Your task to perform on an android device: turn off airplane mode Image 0: 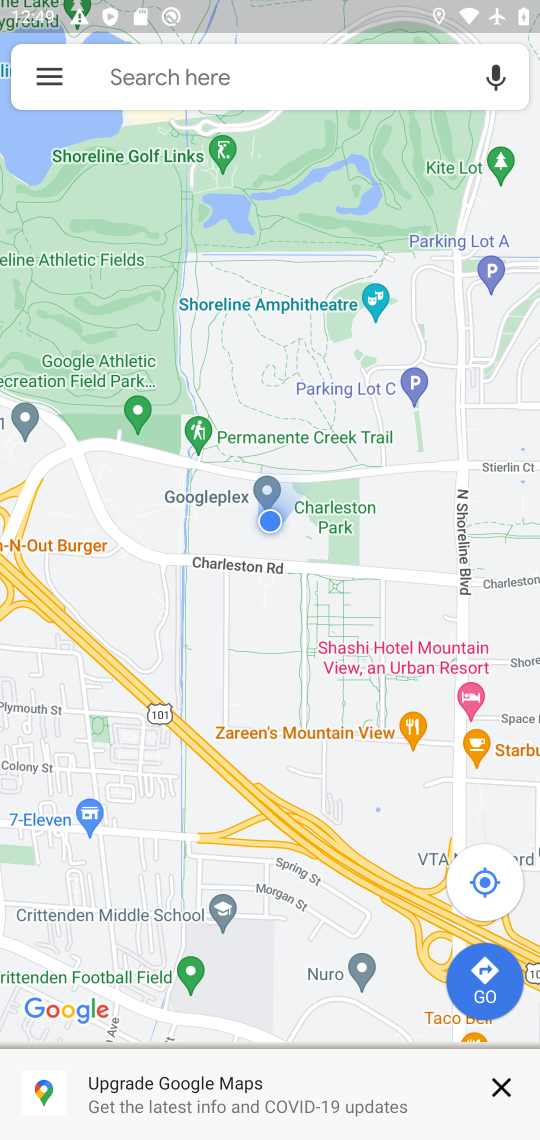
Step 0: press home button
Your task to perform on an android device: turn off airplane mode Image 1: 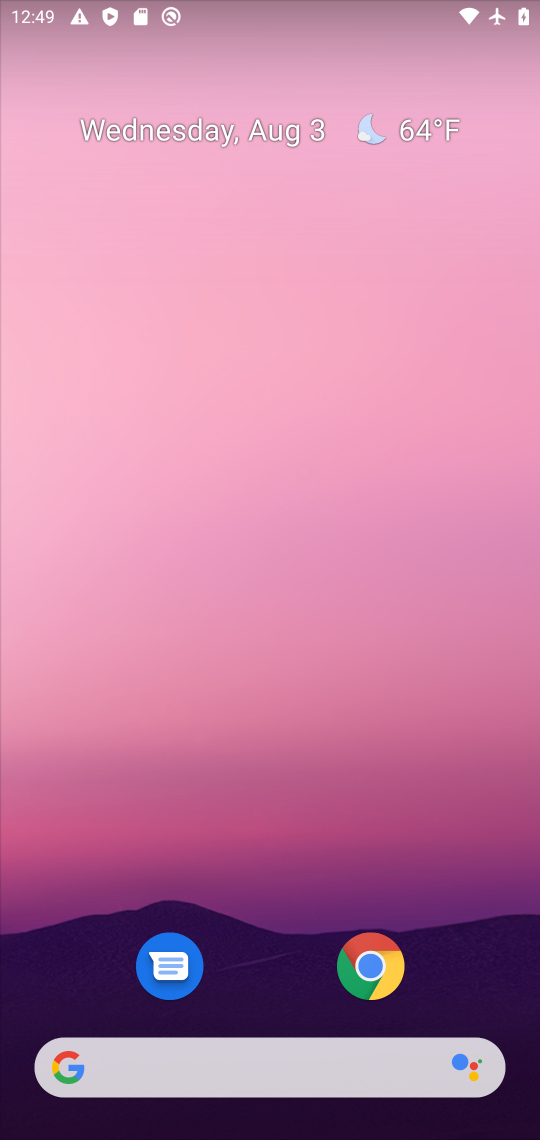
Step 1: drag from (267, 992) to (294, 257)
Your task to perform on an android device: turn off airplane mode Image 2: 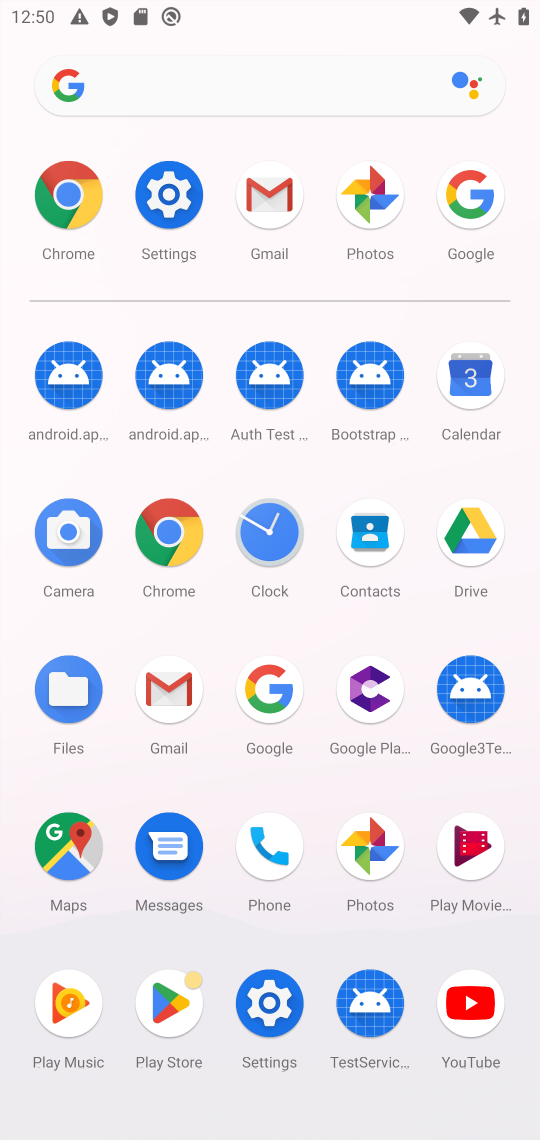
Step 2: click (189, 214)
Your task to perform on an android device: turn off airplane mode Image 3: 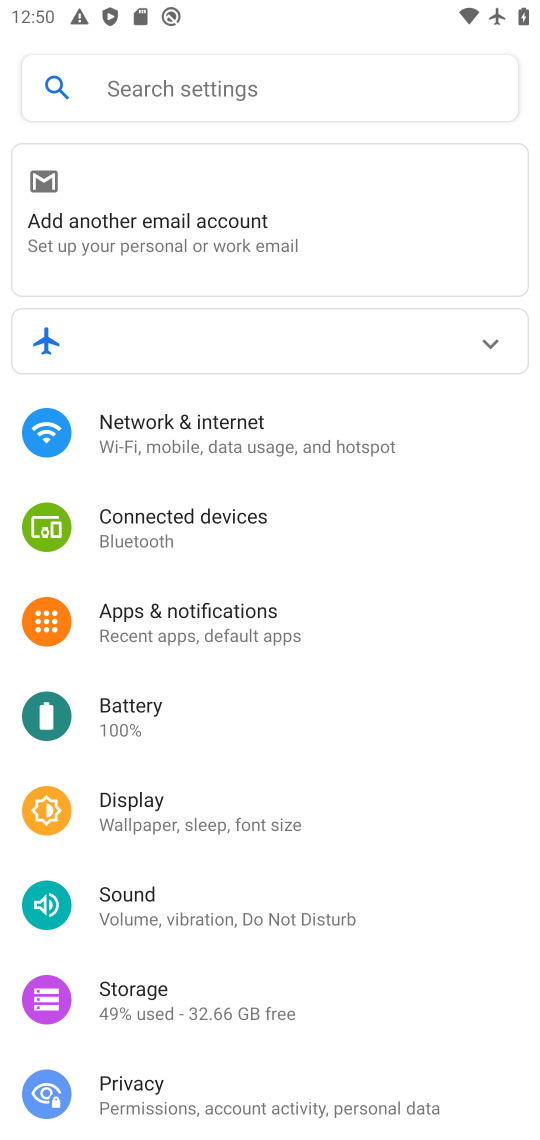
Step 3: click (296, 426)
Your task to perform on an android device: turn off airplane mode Image 4: 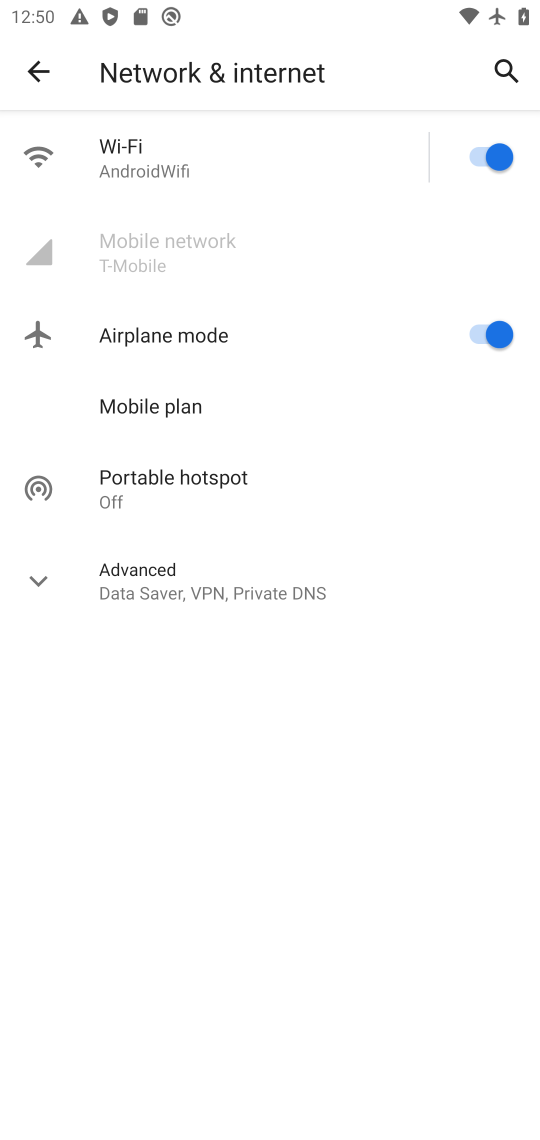
Step 4: click (464, 336)
Your task to perform on an android device: turn off airplane mode Image 5: 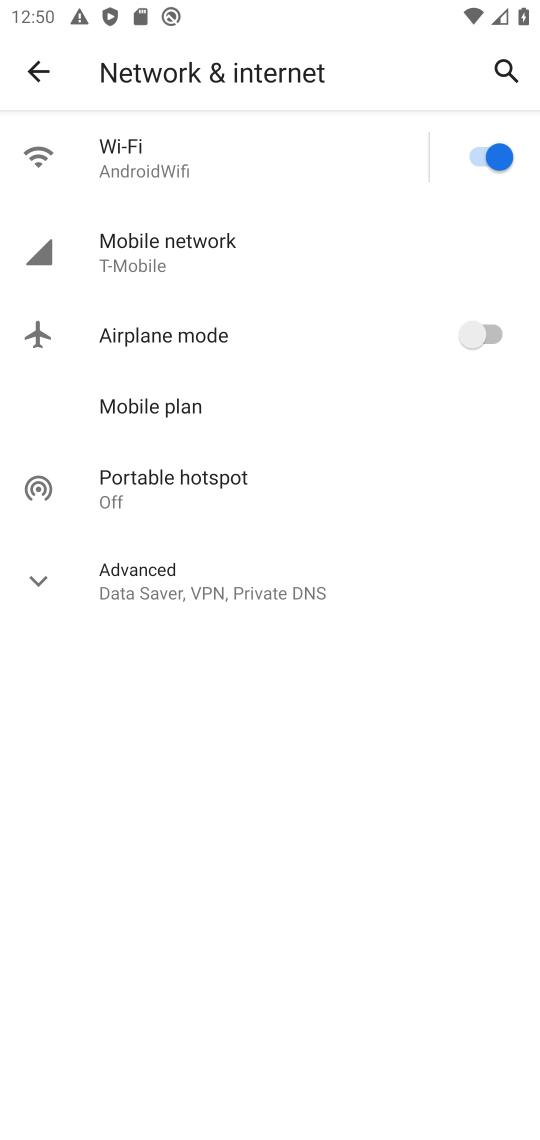
Step 5: task complete